Your task to perform on an android device: set an alarm Image 0: 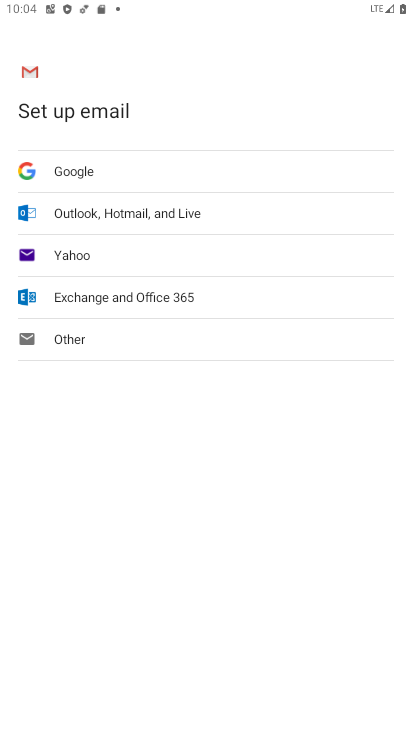
Step 0: press home button
Your task to perform on an android device: set an alarm Image 1: 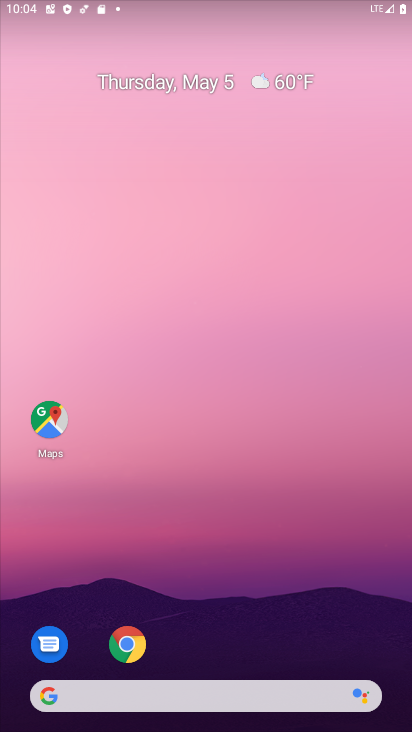
Step 1: drag from (232, 493) to (298, 108)
Your task to perform on an android device: set an alarm Image 2: 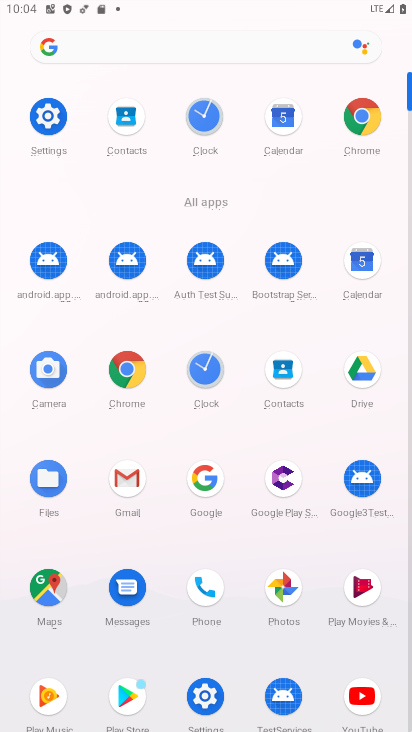
Step 2: click (219, 375)
Your task to perform on an android device: set an alarm Image 3: 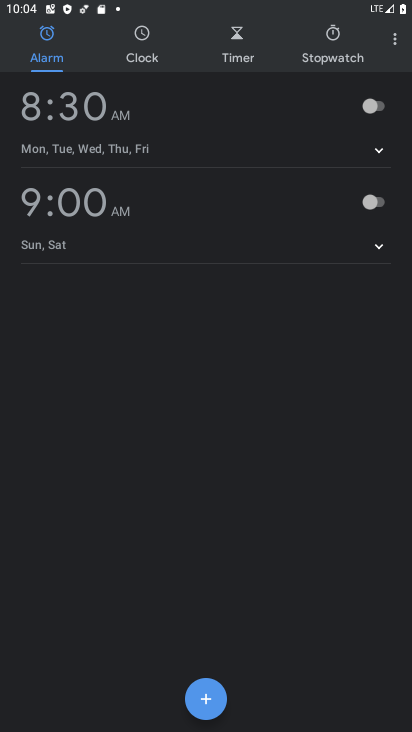
Step 3: click (376, 113)
Your task to perform on an android device: set an alarm Image 4: 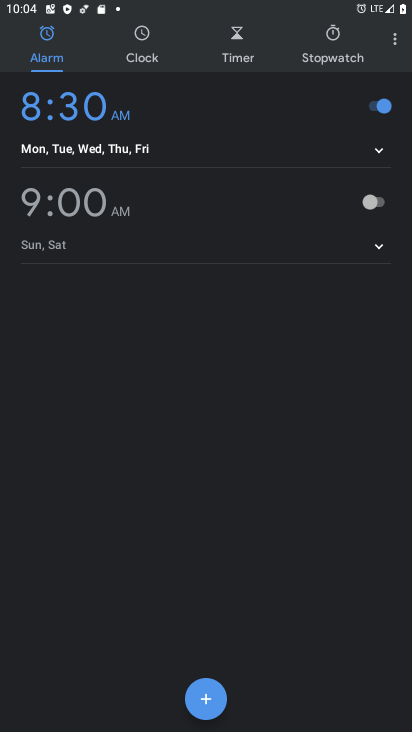
Step 4: task complete